Your task to perform on an android device: Open location settings Image 0: 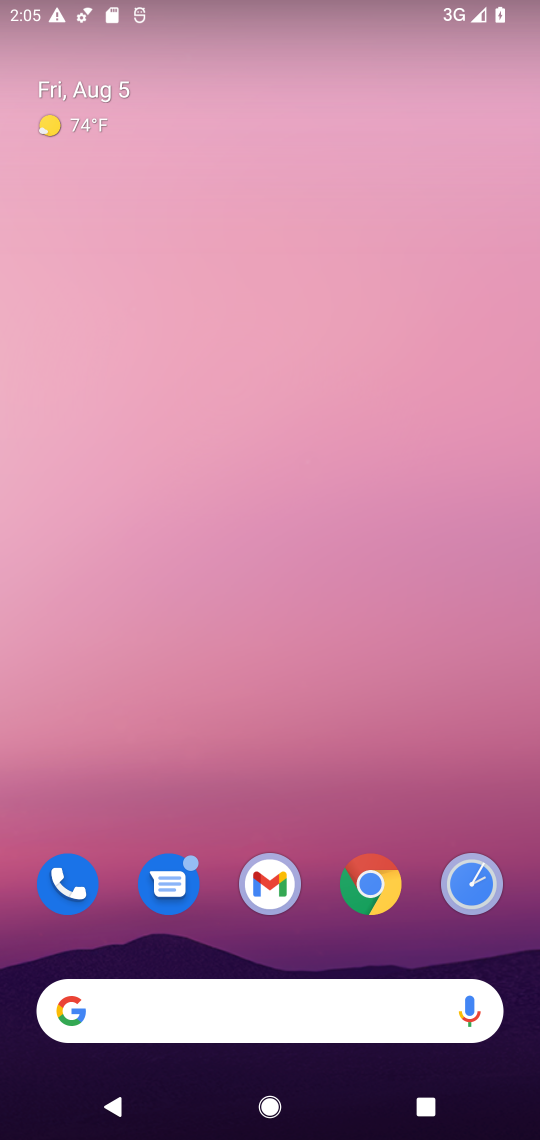
Step 0: drag from (337, 832) to (259, 11)
Your task to perform on an android device: Open location settings Image 1: 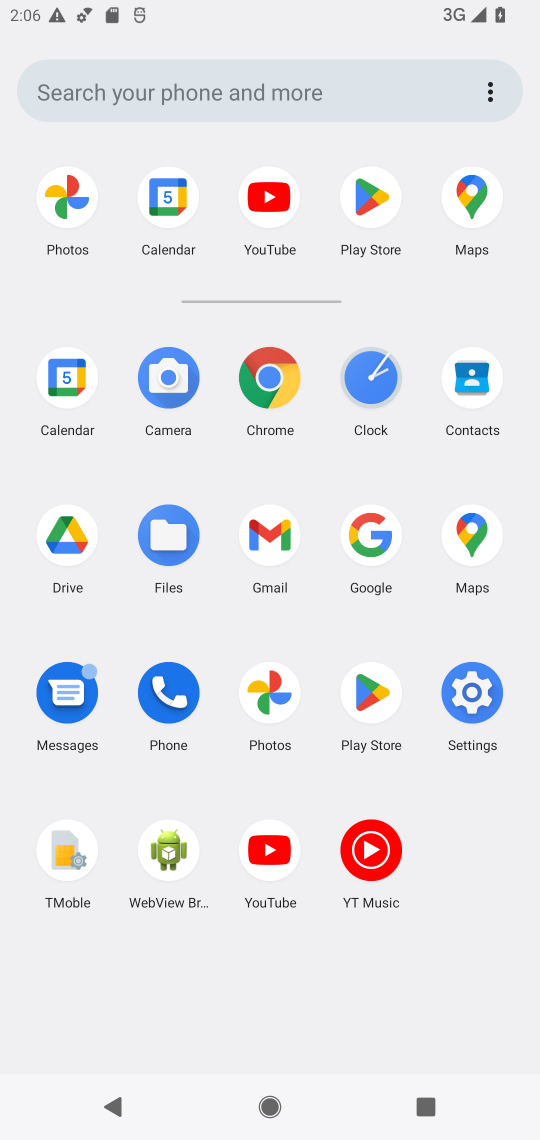
Step 1: click (476, 681)
Your task to perform on an android device: Open location settings Image 2: 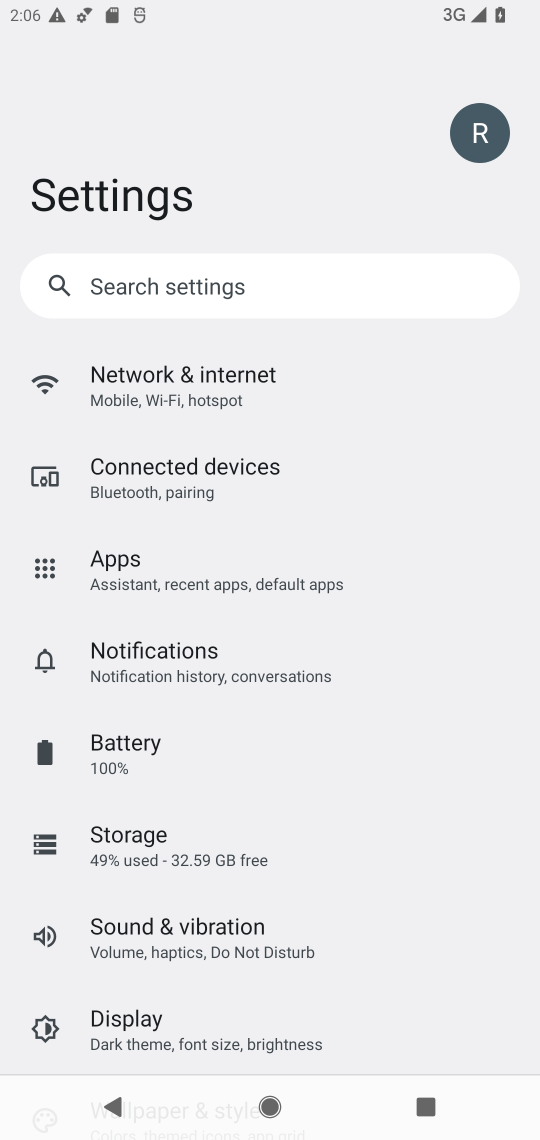
Step 2: drag from (305, 991) to (297, 299)
Your task to perform on an android device: Open location settings Image 3: 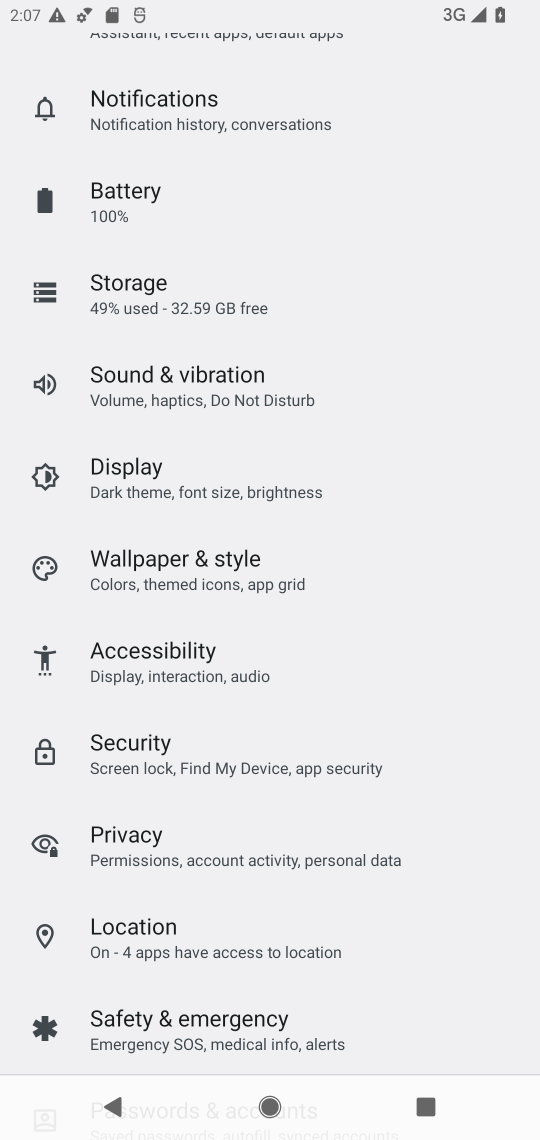
Step 3: click (138, 933)
Your task to perform on an android device: Open location settings Image 4: 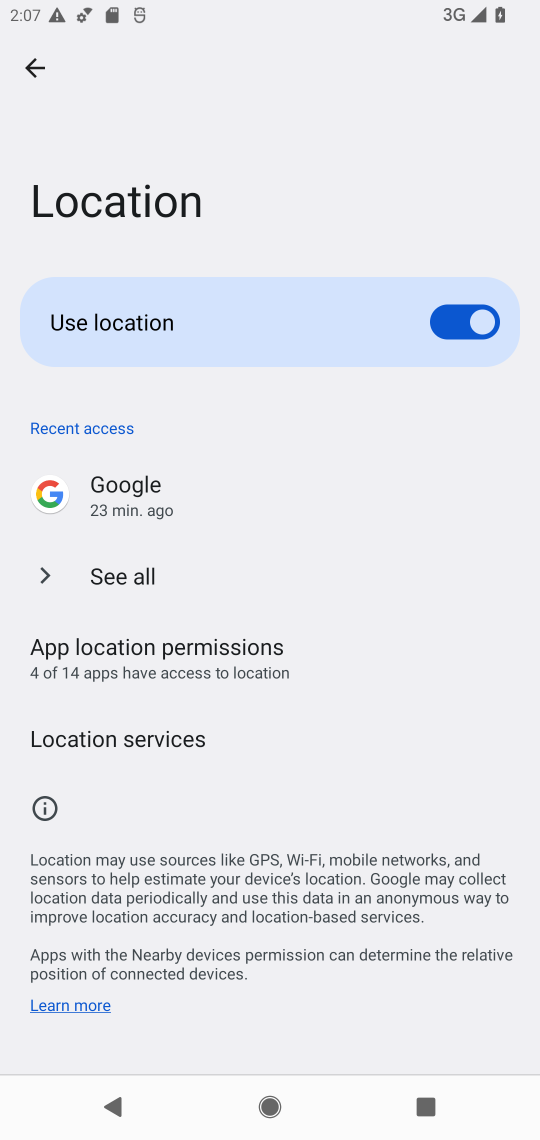
Step 4: task complete